Your task to perform on an android device: Open Chrome and go to settings Image 0: 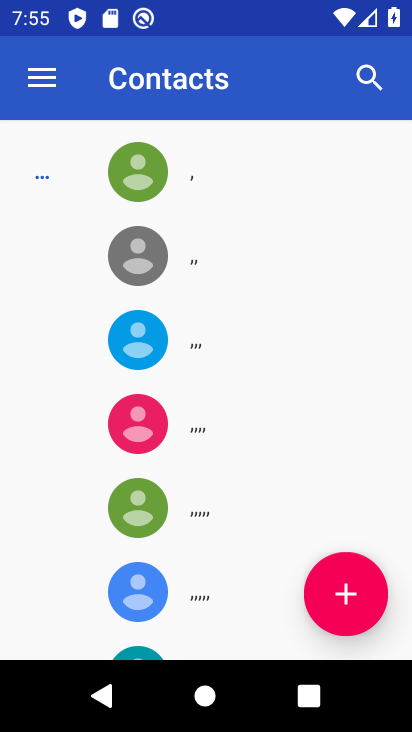
Step 0: press home button
Your task to perform on an android device: Open Chrome and go to settings Image 1: 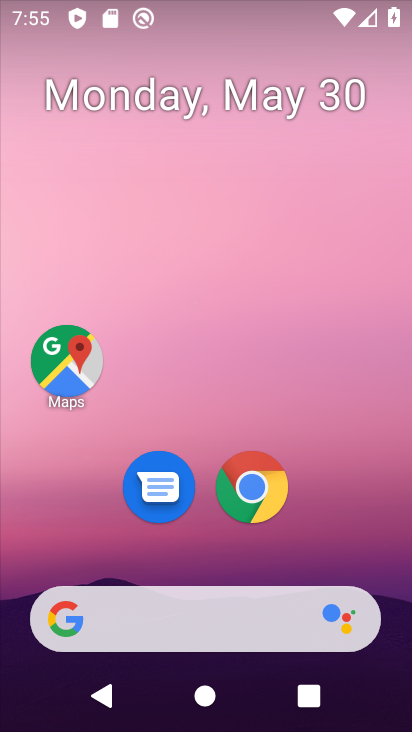
Step 1: click (237, 487)
Your task to perform on an android device: Open Chrome and go to settings Image 2: 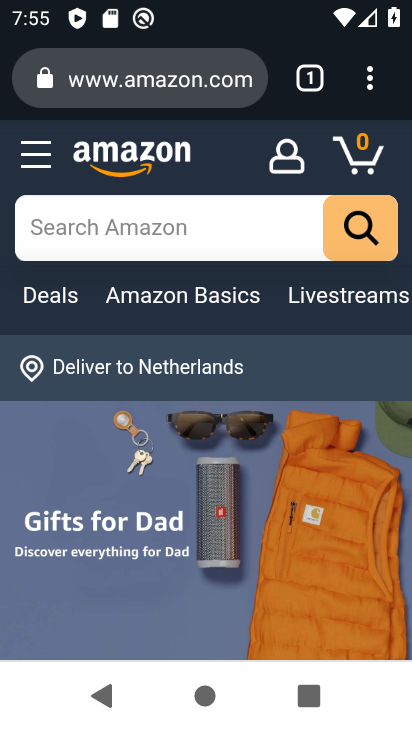
Step 2: click (367, 89)
Your task to perform on an android device: Open Chrome and go to settings Image 3: 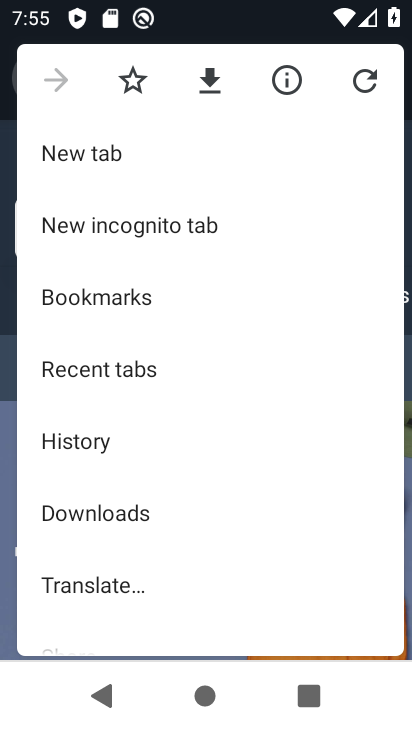
Step 3: drag from (235, 533) to (226, 210)
Your task to perform on an android device: Open Chrome and go to settings Image 4: 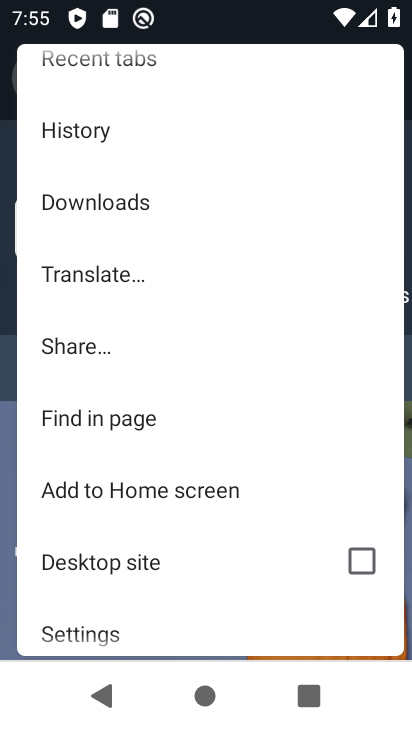
Step 4: drag from (105, 573) to (118, 286)
Your task to perform on an android device: Open Chrome and go to settings Image 5: 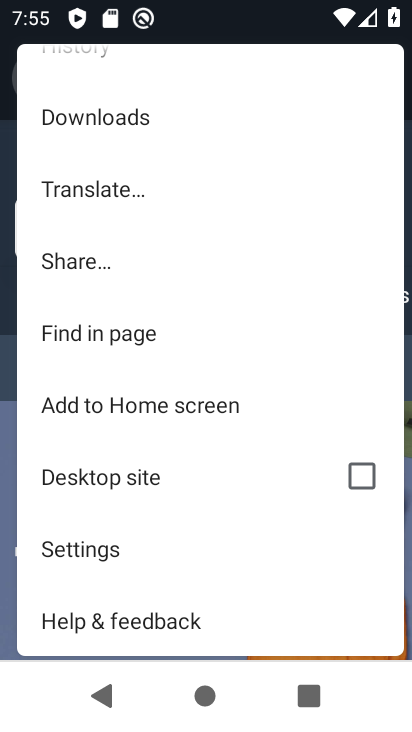
Step 5: click (128, 554)
Your task to perform on an android device: Open Chrome and go to settings Image 6: 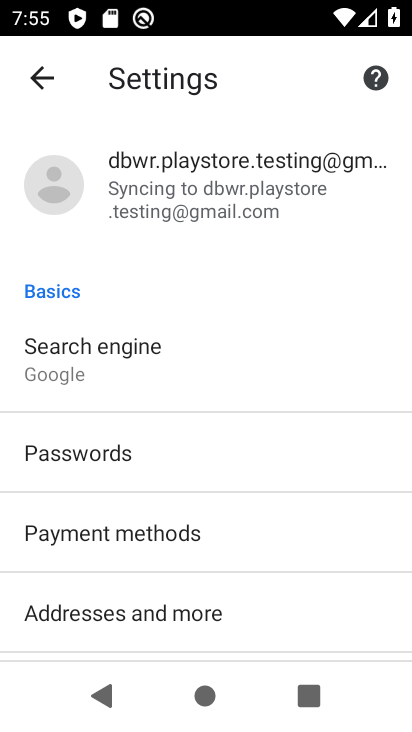
Step 6: task complete